Your task to perform on an android device: Open maps Image 0: 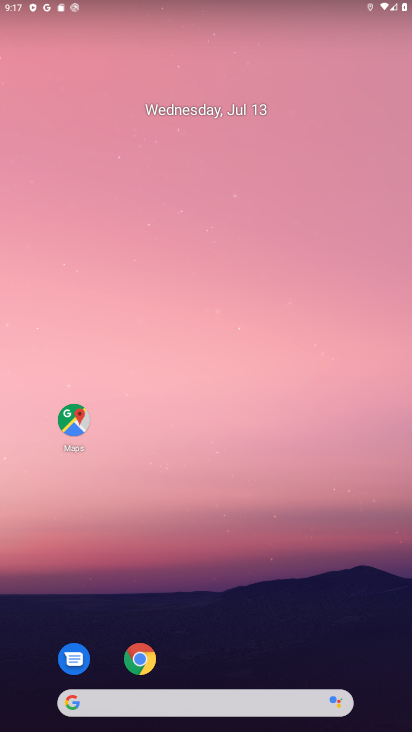
Step 0: press home button
Your task to perform on an android device: Open maps Image 1: 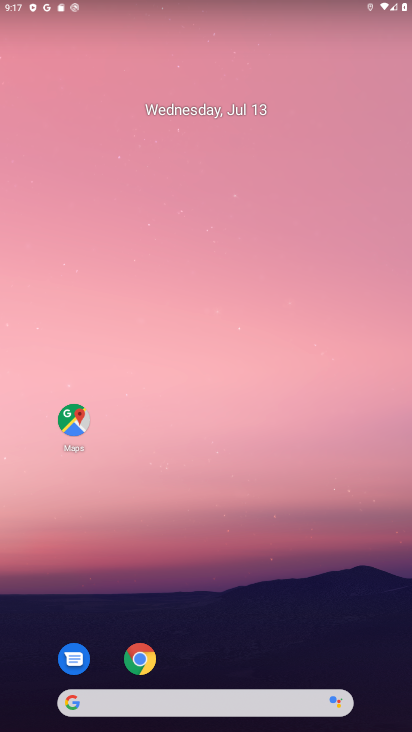
Step 1: click (67, 423)
Your task to perform on an android device: Open maps Image 2: 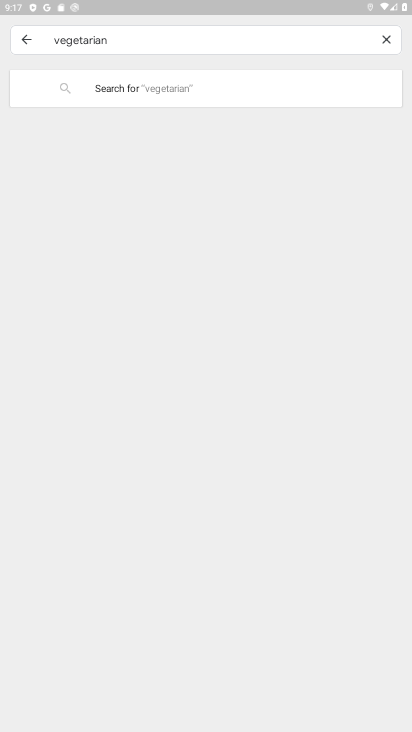
Step 2: click (12, 40)
Your task to perform on an android device: Open maps Image 3: 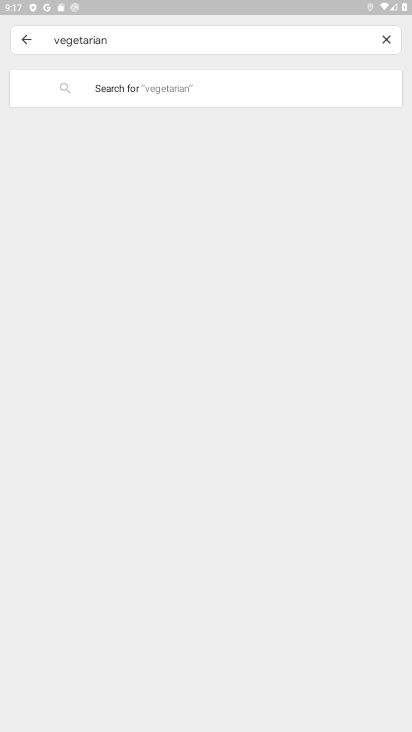
Step 3: click (20, 43)
Your task to perform on an android device: Open maps Image 4: 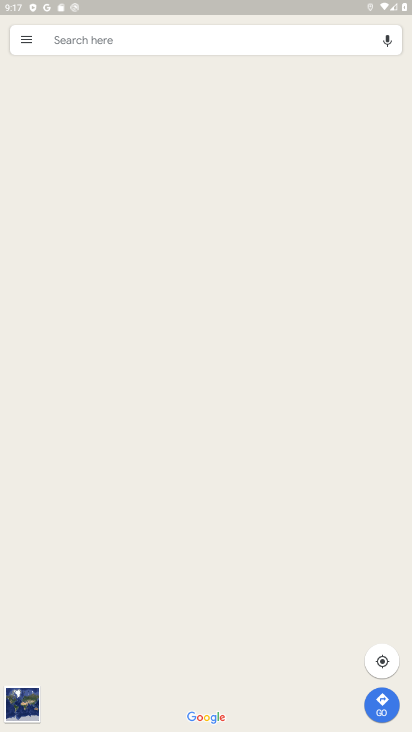
Step 4: task complete